Your task to perform on an android device: delete browsing data in the chrome app Image 0: 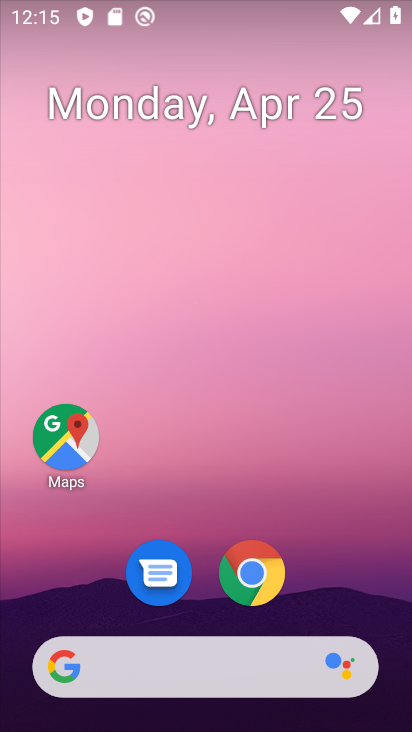
Step 0: click (253, 568)
Your task to perform on an android device: delete browsing data in the chrome app Image 1: 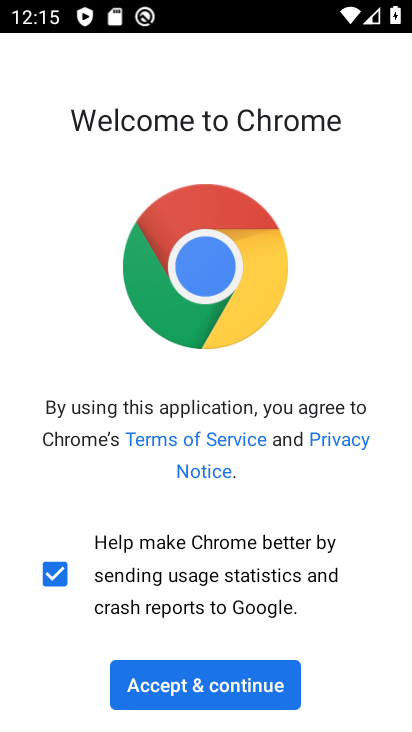
Step 1: click (207, 683)
Your task to perform on an android device: delete browsing data in the chrome app Image 2: 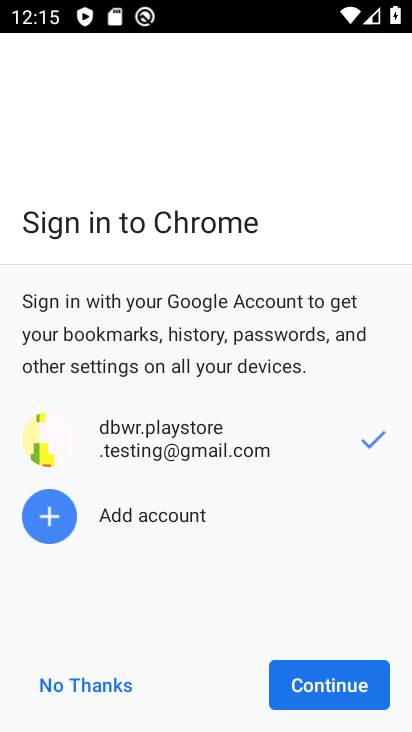
Step 2: click (306, 681)
Your task to perform on an android device: delete browsing data in the chrome app Image 3: 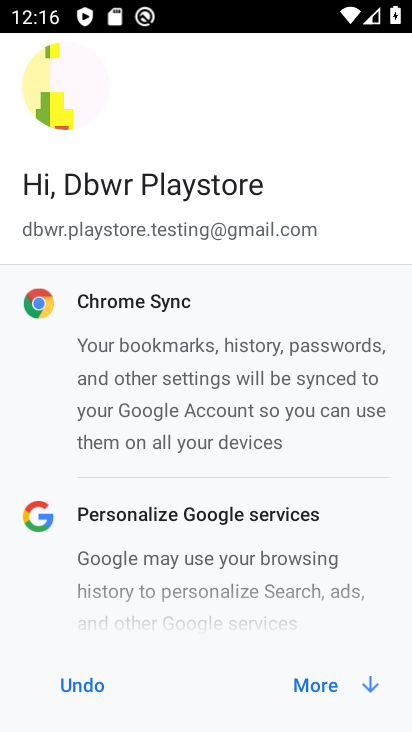
Step 3: click (312, 683)
Your task to perform on an android device: delete browsing data in the chrome app Image 4: 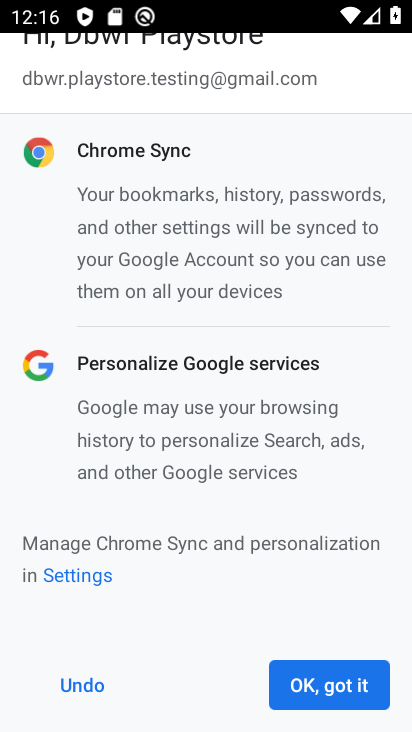
Step 4: click (311, 683)
Your task to perform on an android device: delete browsing data in the chrome app Image 5: 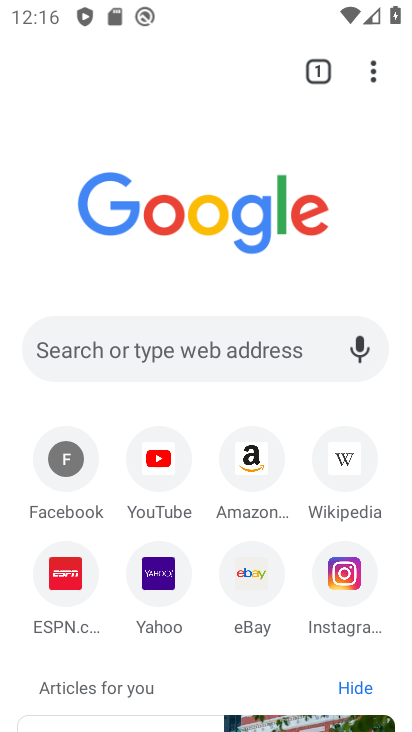
Step 5: click (380, 51)
Your task to perform on an android device: delete browsing data in the chrome app Image 6: 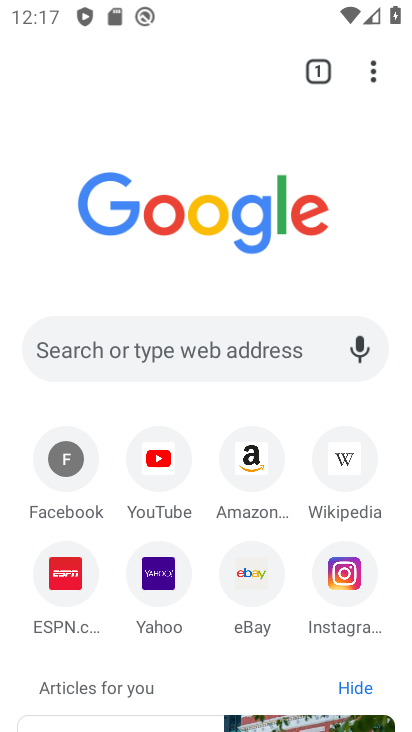
Step 6: click (366, 70)
Your task to perform on an android device: delete browsing data in the chrome app Image 7: 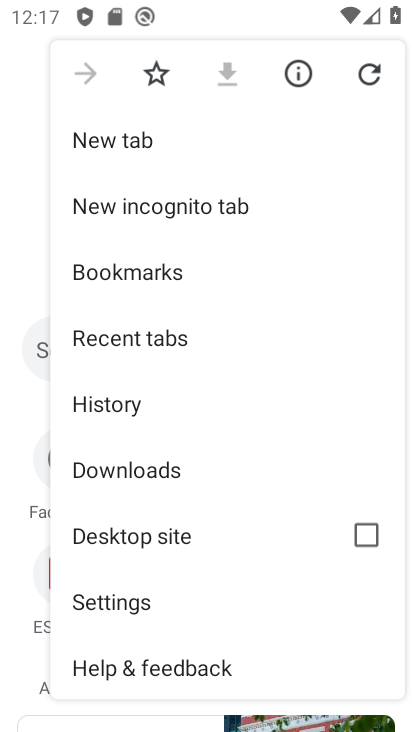
Step 7: drag from (225, 541) to (196, 197)
Your task to perform on an android device: delete browsing data in the chrome app Image 8: 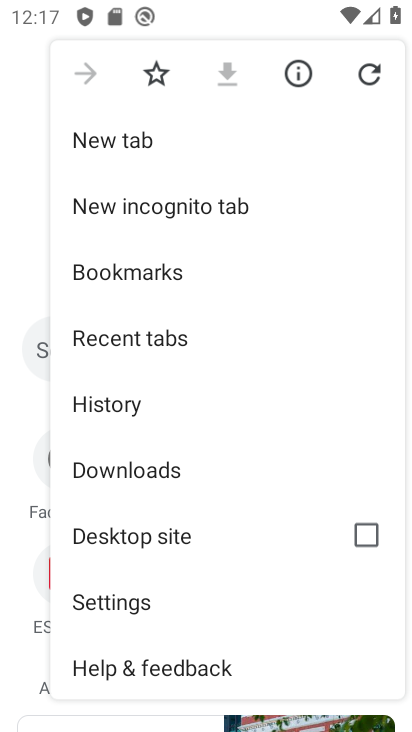
Step 8: drag from (208, 508) to (206, 216)
Your task to perform on an android device: delete browsing data in the chrome app Image 9: 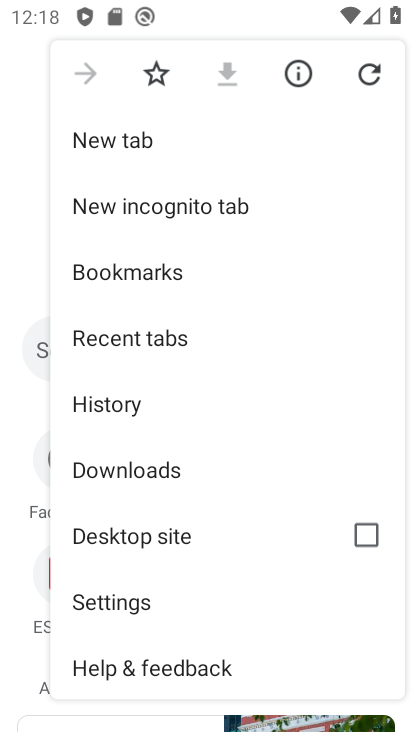
Step 9: click (171, 587)
Your task to perform on an android device: delete browsing data in the chrome app Image 10: 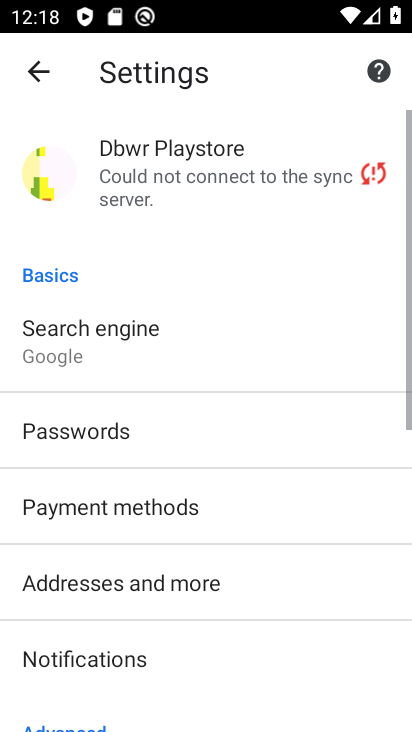
Step 10: drag from (193, 426) to (183, 240)
Your task to perform on an android device: delete browsing data in the chrome app Image 11: 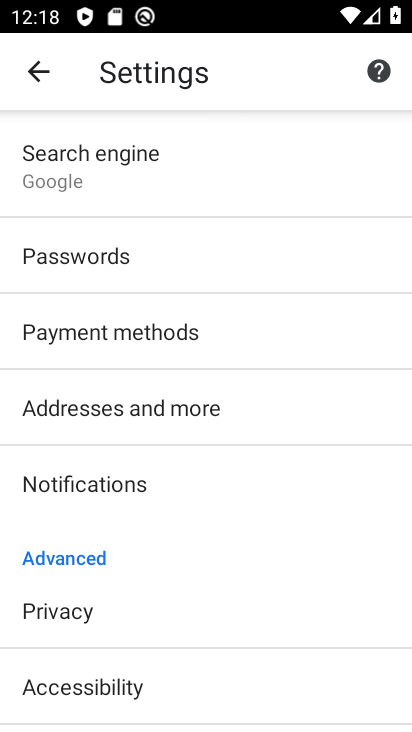
Step 11: click (129, 604)
Your task to perform on an android device: delete browsing data in the chrome app Image 12: 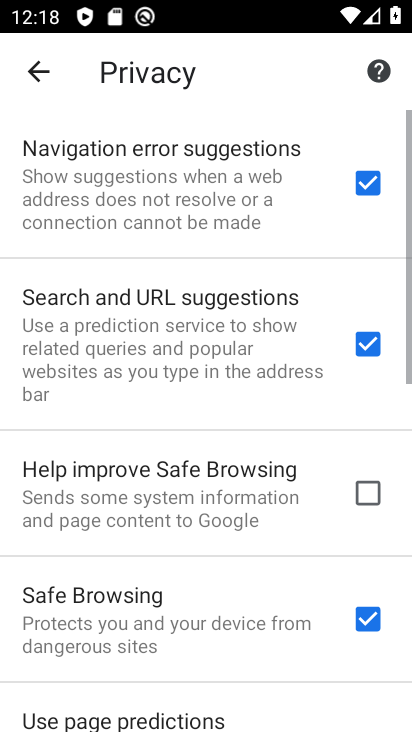
Step 12: drag from (213, 645) to (146, 88)
Your task to perform on an android device: delete browsing data in the chrome app Image 13: 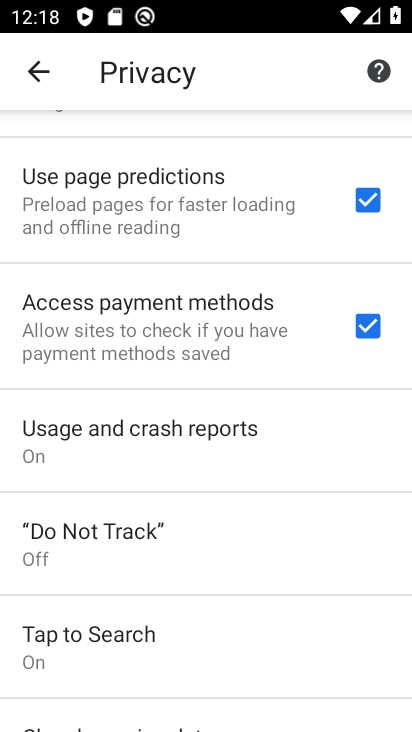
Step 13: drag from (179, 654) to (132, 123)
Your task to perform on an android device: delete browsing data in the chrome app Image 14: 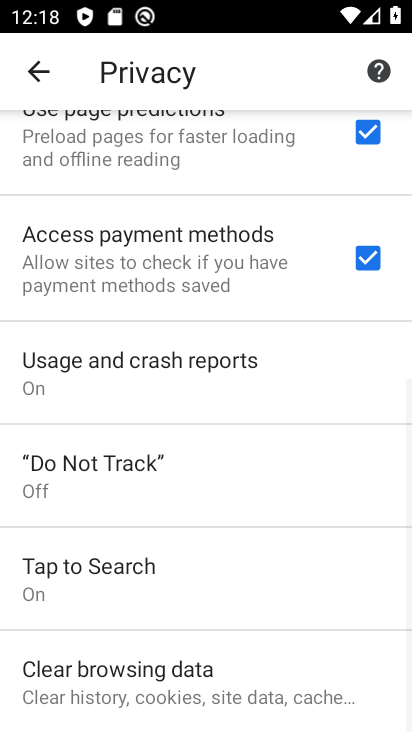
Step 14: click (143, 669)
Your task to perform on an android device: delete browsing data in the chrome app Image 15: 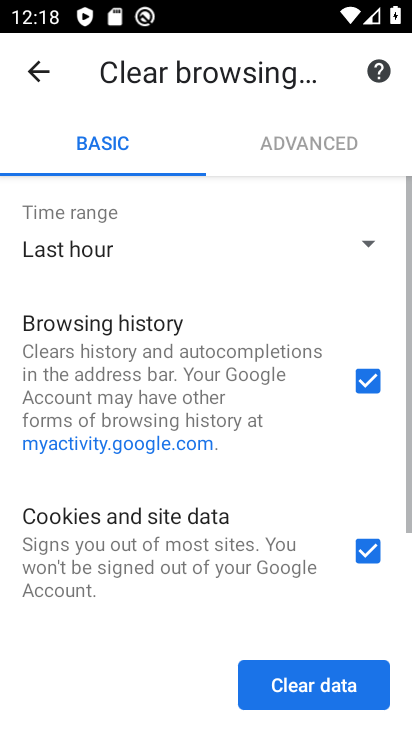
Step 15: click (365, 547)
Your task to perform on an android device: delete browsing data in the chrome app Image 16: 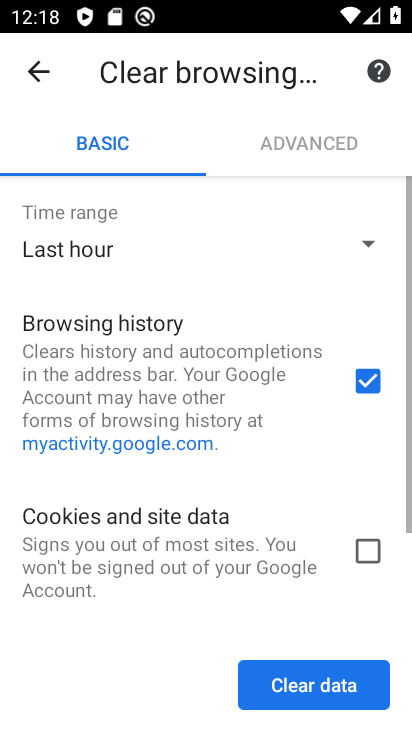
Step 16: click (285, 270)
Your task to perform on an android device: delete browsing data in the chrome app Image 17: 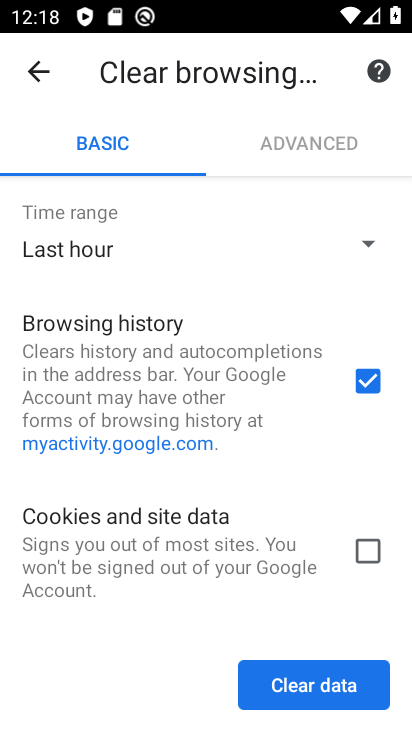
Step 17: click (269, 240)
Your task to perform on an android device: delete browsing data in the chrome app Image 18: 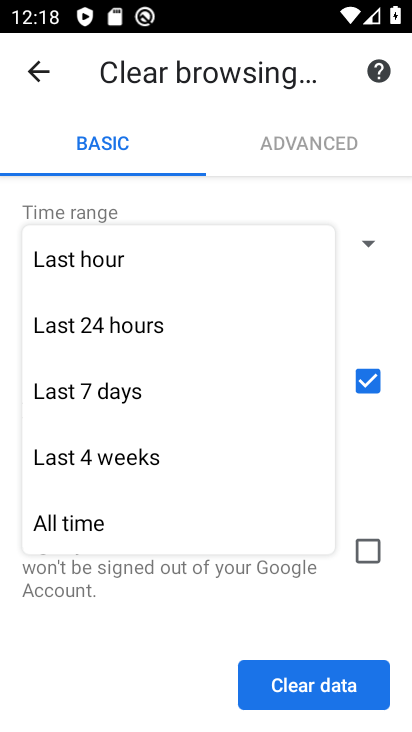
Step 18: click (128, 527)
Your task to perform on an android device: delete browsing data in the chrome app Image 19: 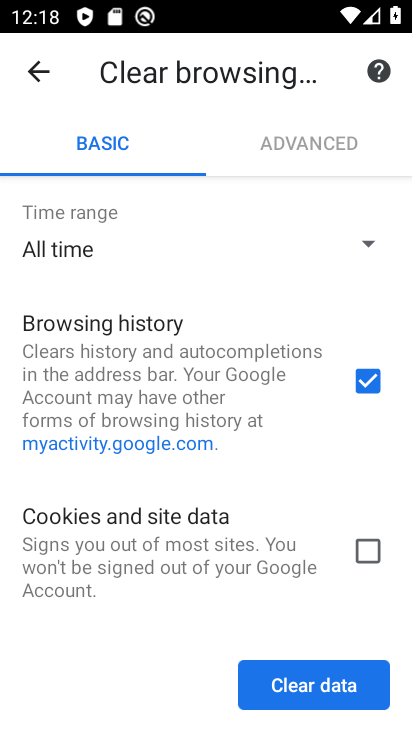
Step 19: drag from (225, 503) to (184, 239)
Your task to perform on an android device: delete browsing data in the chrome app Image 20: 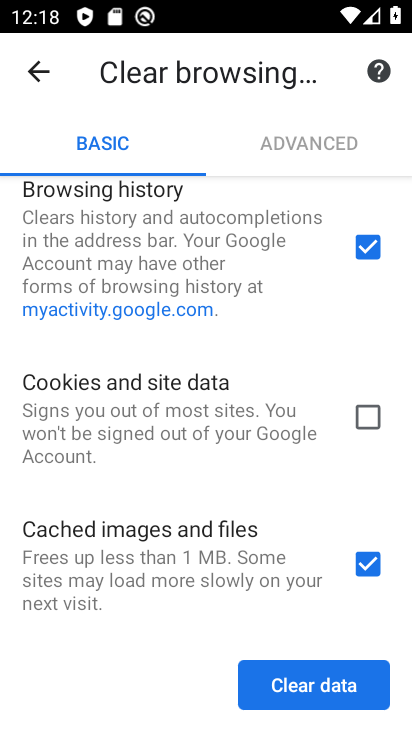
Step 20: click (369, 571)
Your task to perform on an android device: delete browsing data in the chrome app Image 21: 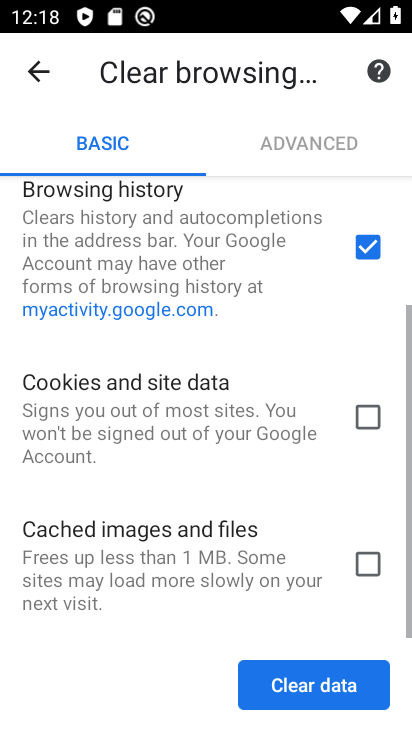
Step 21: click (365, 688)
Your task to perform on an android device: delete browsing data in the chrome app Image 22: 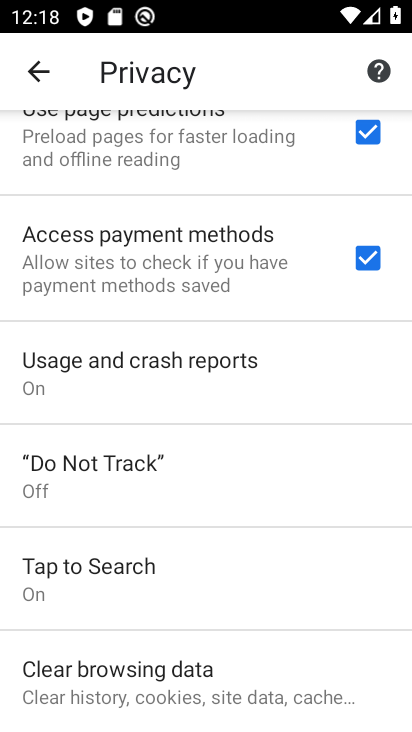
Step 22: task complete